Your task to perform on an android device: turn notification dots on Image 0: 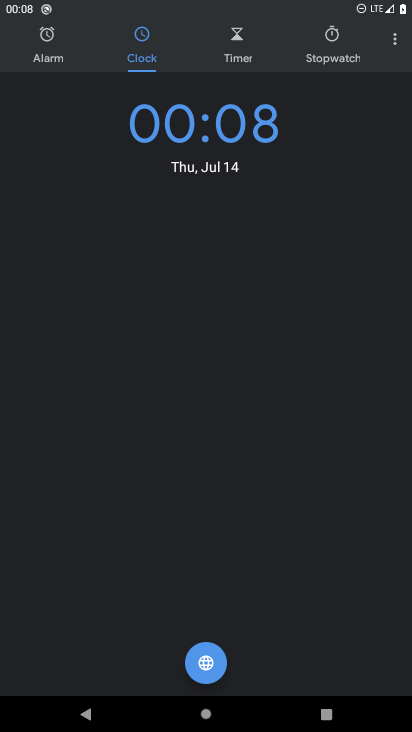
Step 0: press home button
Your task to perform on an android device: turn notification dots on Image 1: 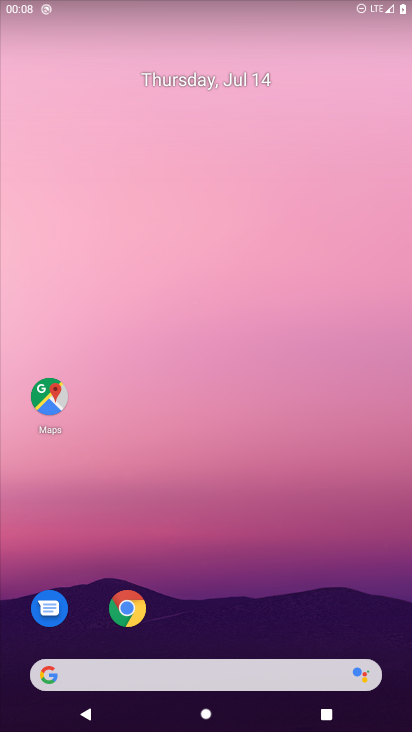
Step 1: drag from (324, 505) to (397, 24)
Your task to perform on an android device: turn notification dots on Image 2: 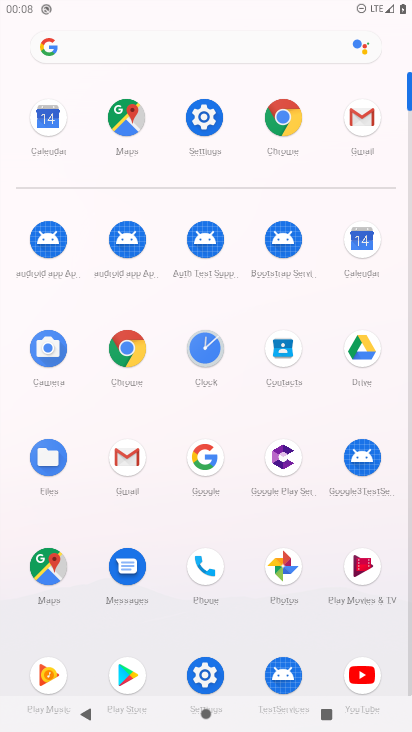
Step 2: click (183, 138)
Your task to perform on an android device: turn notification dots on Image 3: 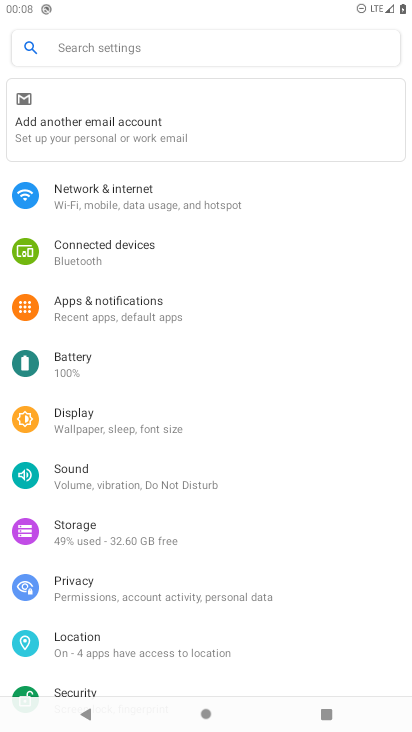
Step 3: click (91, 310)
Your task to perform on an android device: turn notification dots on Image 4: 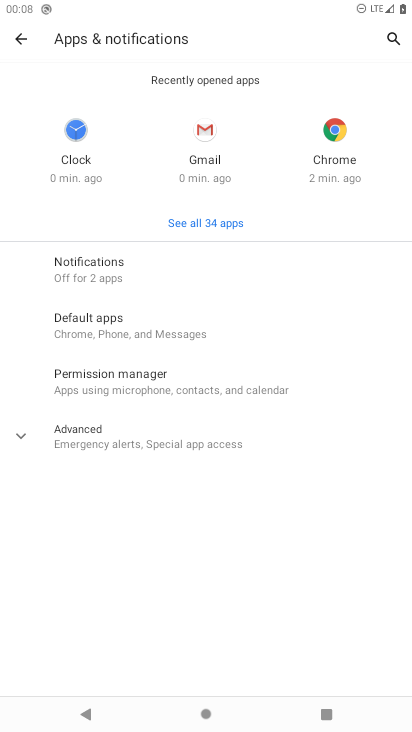
Step 4: click (108, 259)
Your task to perform on an android device: turn notification dots on Image 5: 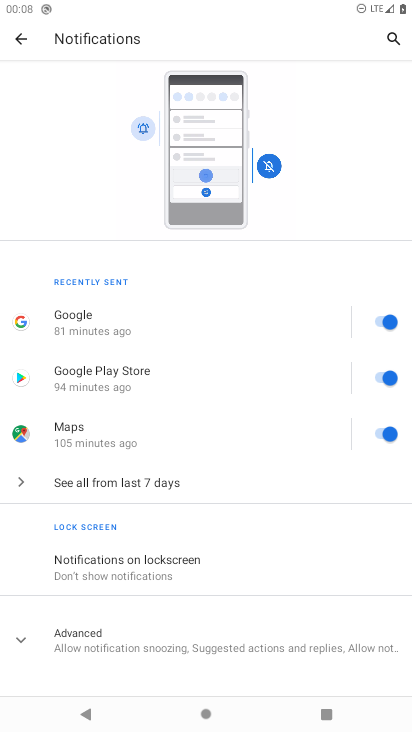
Step 5: click (150, 564)
Your task to perform on an android device: turn notification dots on Image 6: 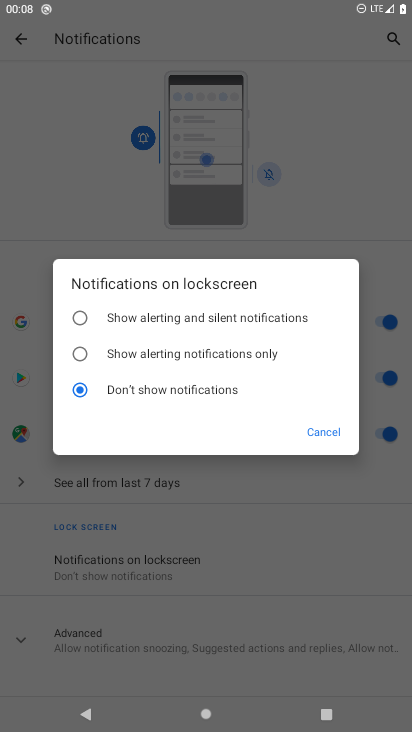
Step 6: click (132, 604)
Your task to perform on an android device: turn notification dots on Image 7: 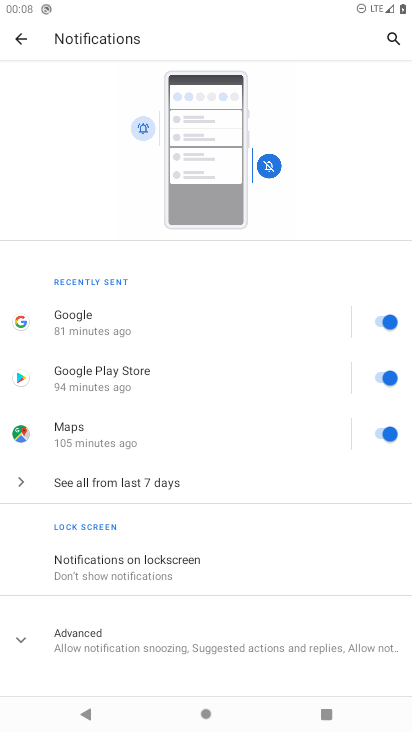
Step 7: click (171, 630)
Your task to perform on an android device: turn notification dots on Image 8: 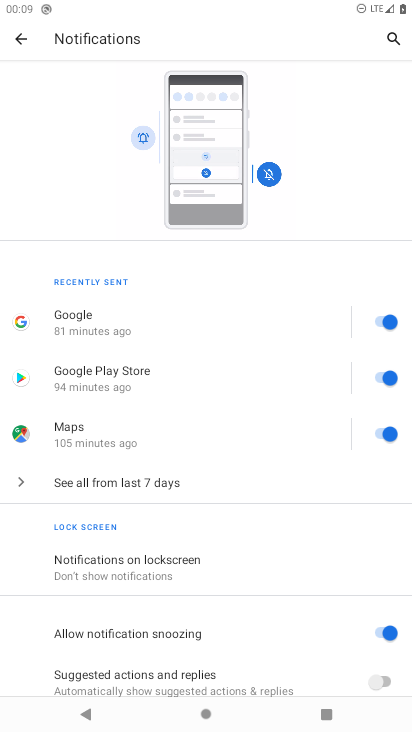
Step 8: drag from (301, 637) to (294, 439)
Your task to perform on an android device: turn notification dots on Image 9: 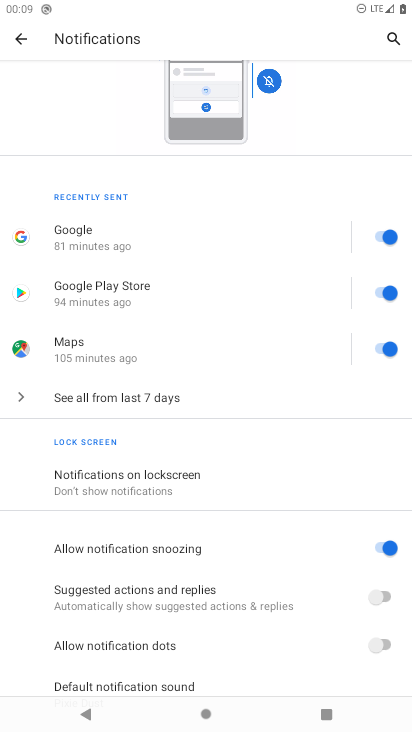
Step 9: click (376, 653)
Your task to perform on an android device: turn notification dots on Image 10: 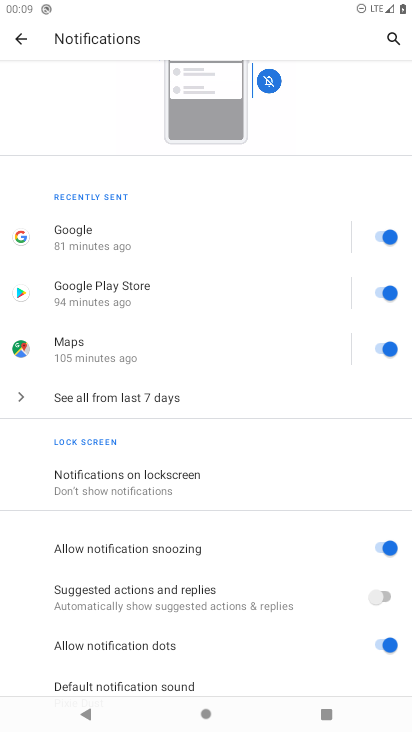
Step 10: task complete